Your task to perform on an android device: Go to internet settings Image 0: 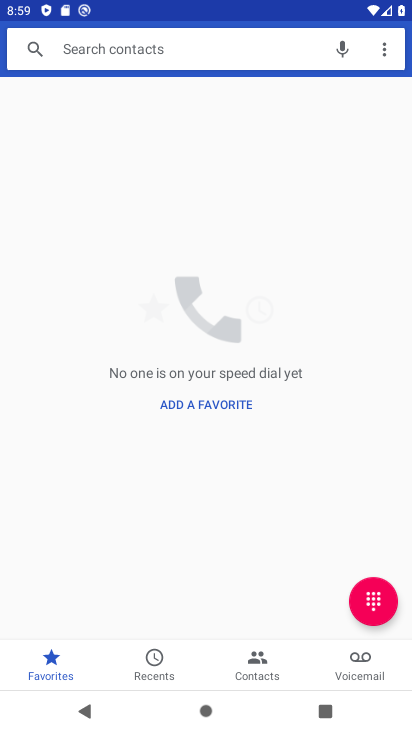
Step 0: press home button
Your task to perform on an android device: Go to internet settings Image 1: 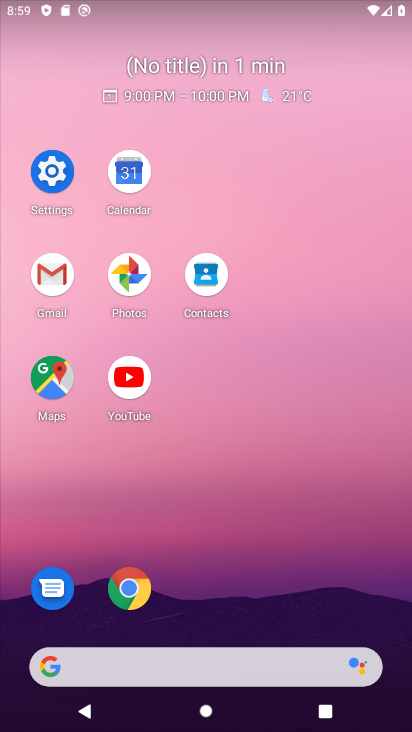
Step 1: click (47, 159)
Your task to perform on an android device: Go to internet settings Image 2: 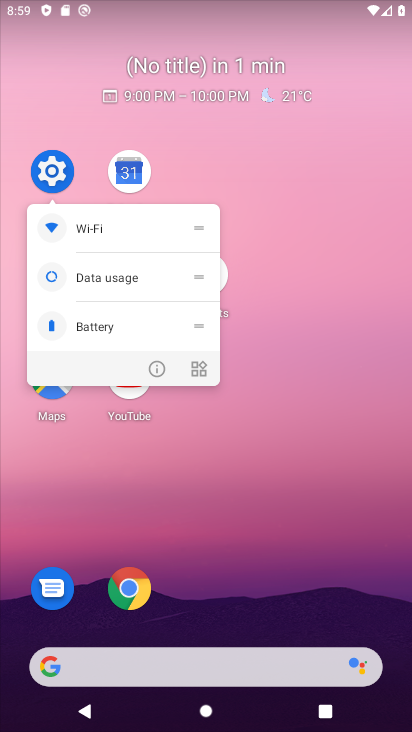
Step 2: click (51, 163)
Your task to perform on an android device: Go to internet settings Image 3: 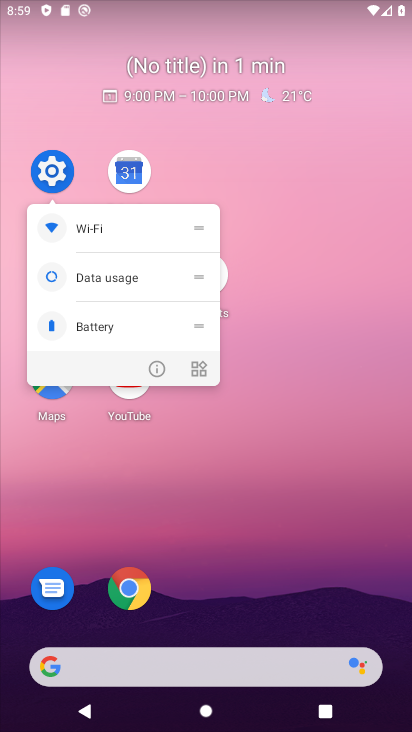
Step 3: click (66, 189)
Your task to perform on an android device: Go to internet settings Image 4: 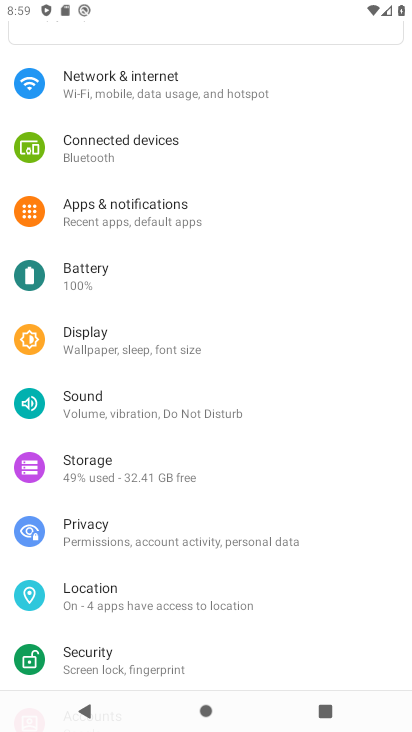
Step 4: click (194, 95)
Your task to perform on an android device: Go to internet settings Image 5: 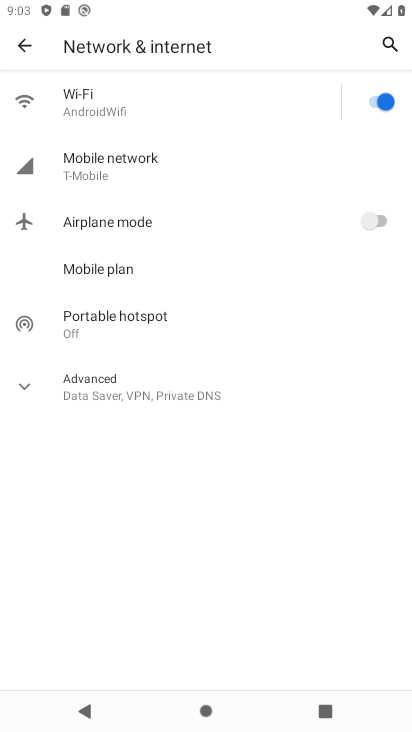
Step 5: task complete